Your task to perform on an android device: turn off airplane mode Image 0: 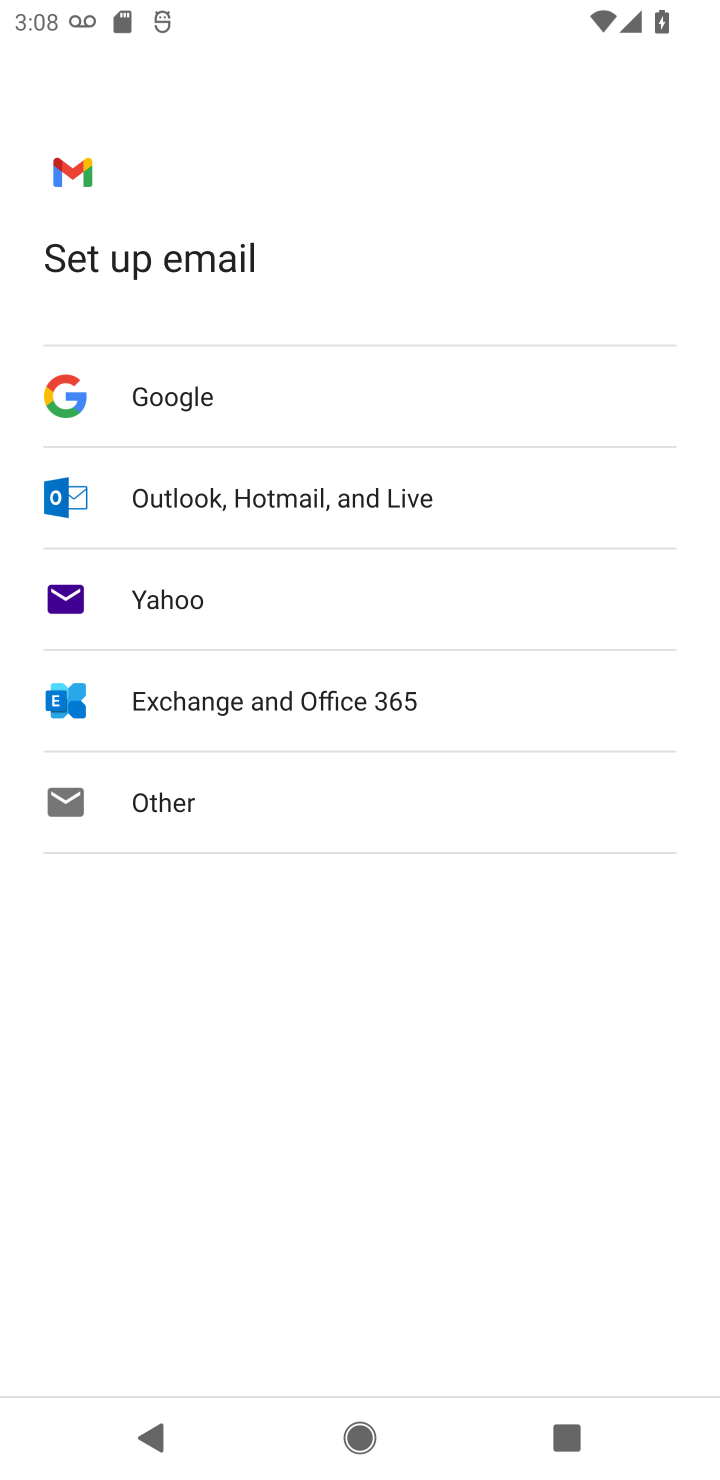
Step 0: press home button
Your task to perform on an android device: turn off airplane mode Image 1: 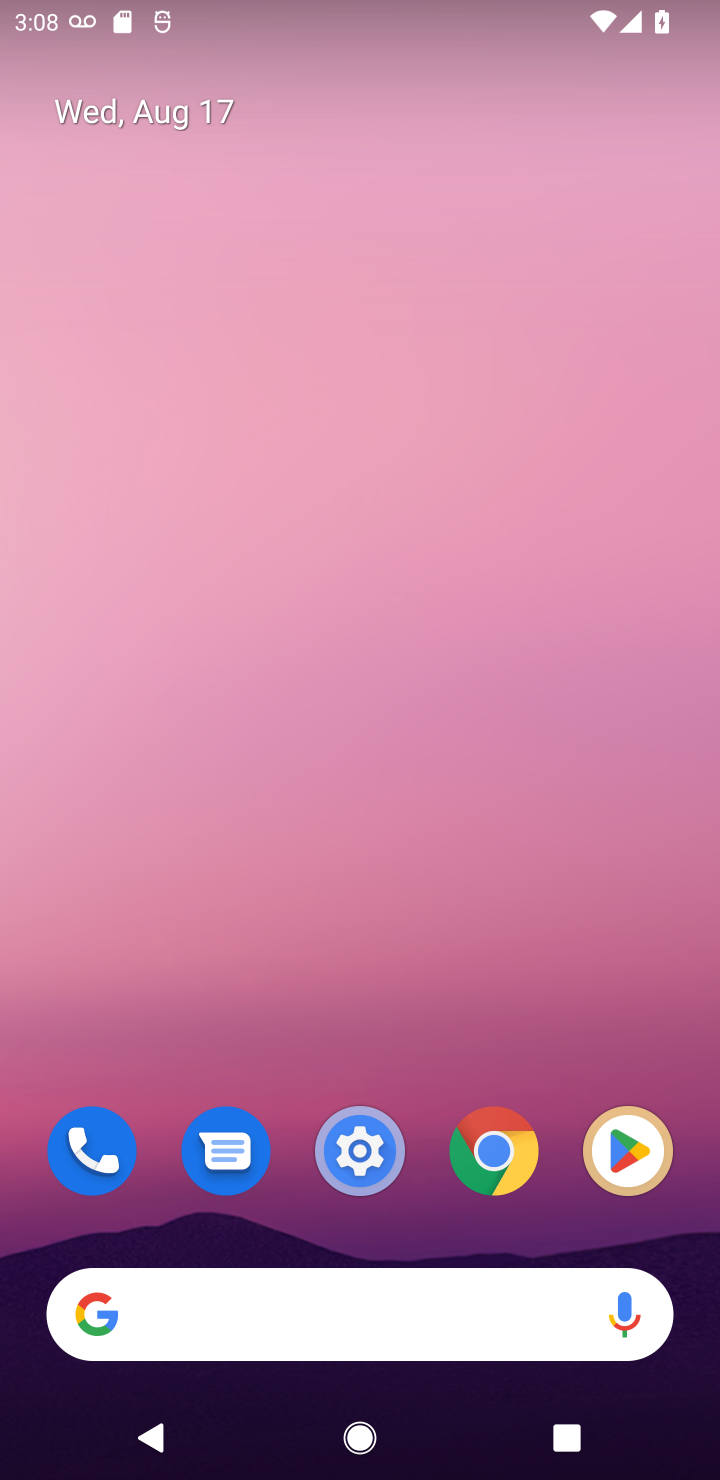
Step 1: drag from (411, 1240) to (377, 407)
Your task to perform on an android device: turn off airplane mode Image 2: 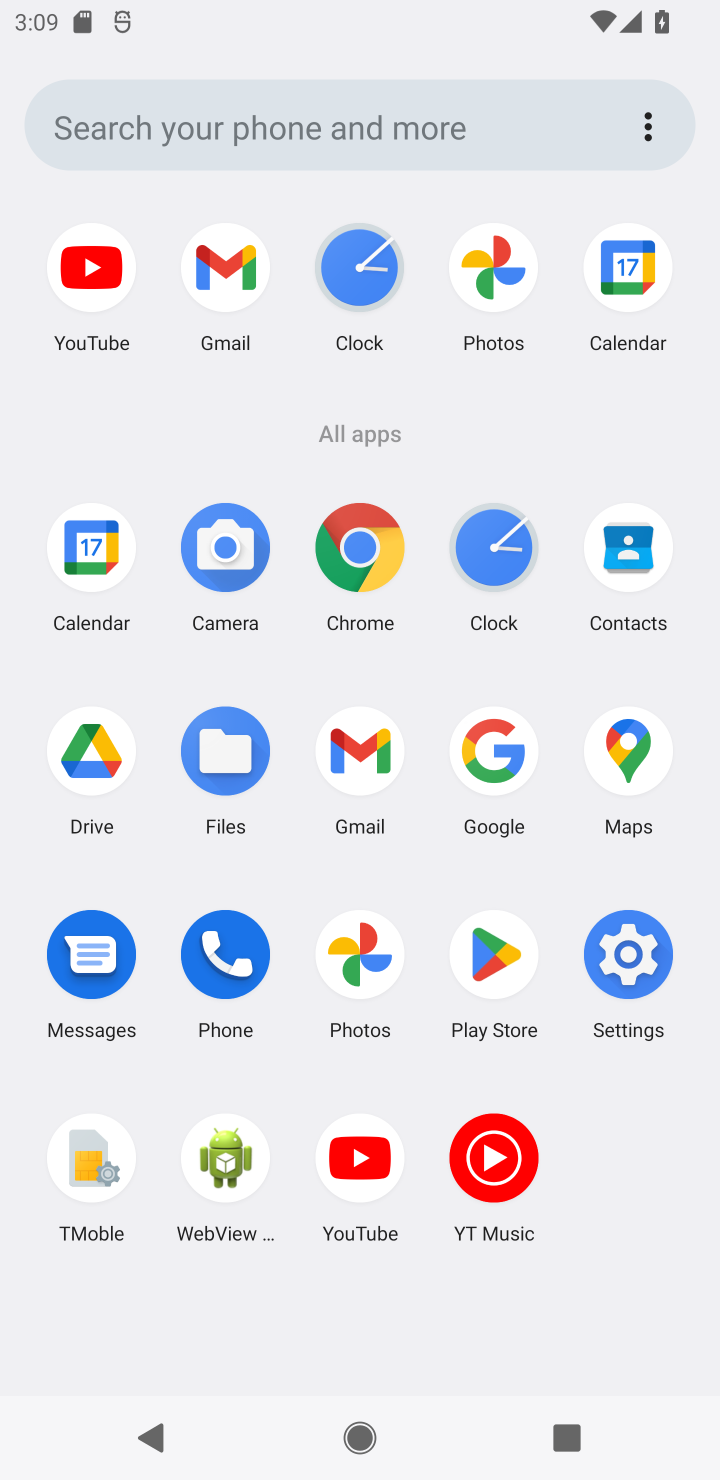
Step 2: click (644, 993)
Your task to perform on an android device: turn off airplane mode Image 3: 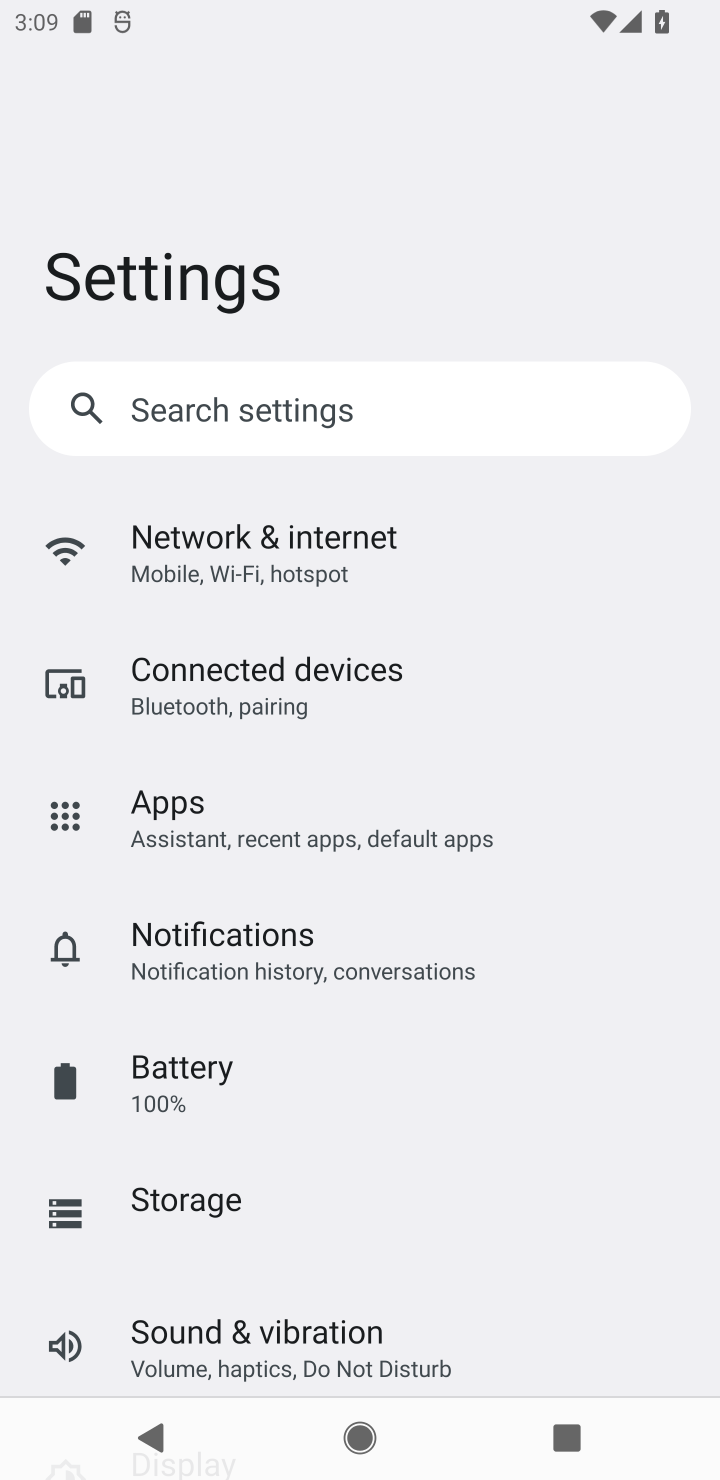
Step 3: click (485, 568)
Your task to perform on an android device: turn off airplane mode Image 4: 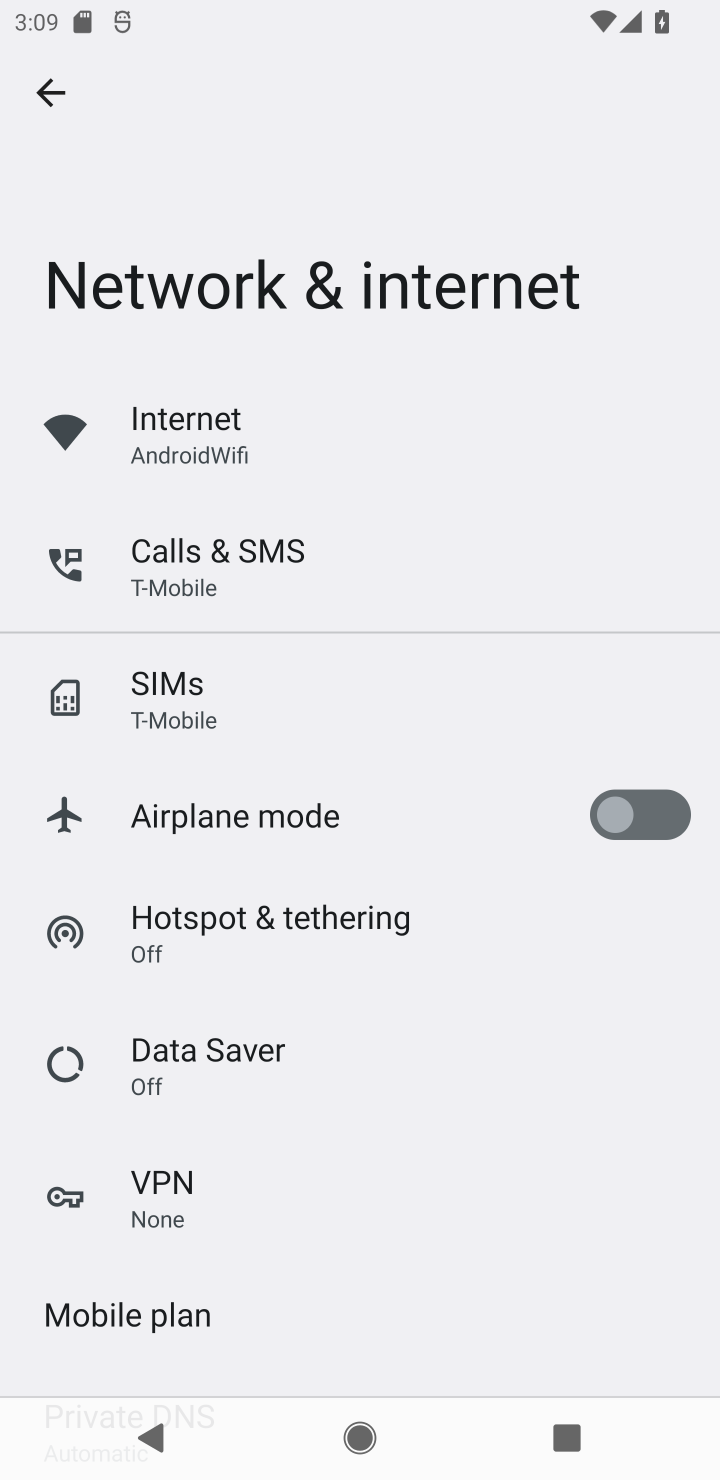
Step 4: task complete